Your task to perform on an android device: turn off smart reply in the gmail app Image 0: 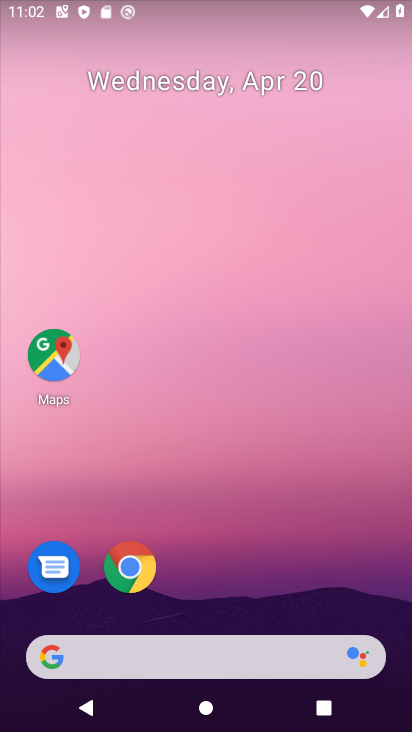
Step 0: drag from (307, 554) to (283, 76)
Your task to perform on an android device: turn off smart reply in the gmail app Image 1: 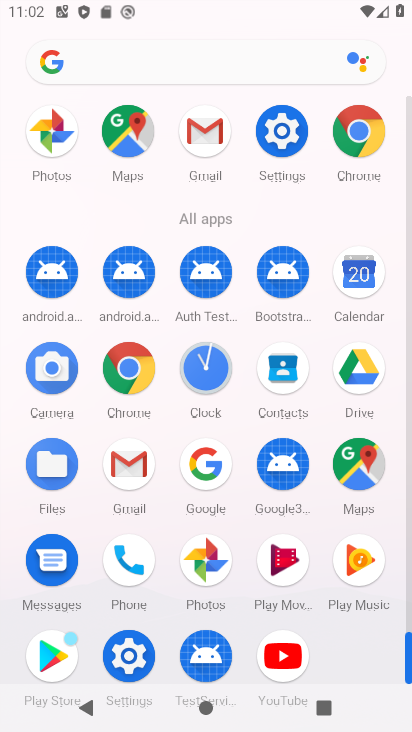
Step 1: drag from (17, 507) to (9, 292)
Your task to perform on an android device: turn off smart reply in the gmail app Image 2: 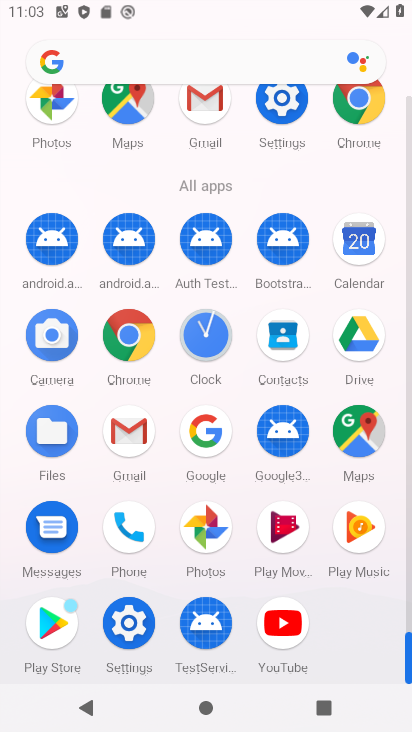
Step 2: click (127, 428)
Your task to perform on an android device: turn off smart reply in the gmail app Image 3: 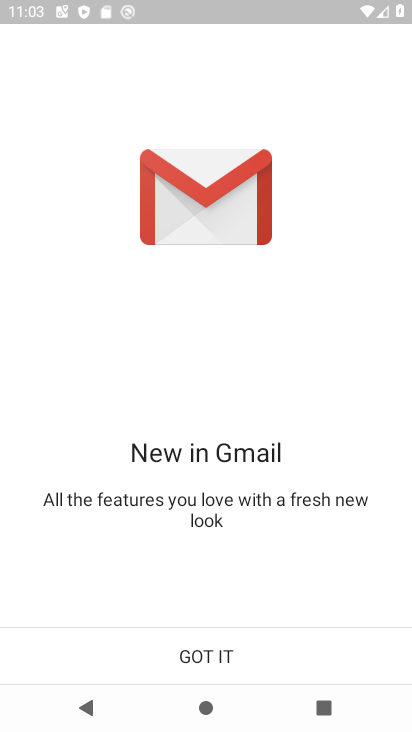
Step 3: click (177, 637)
Your task to perform on an android device: turn off smart reply in the gmail app Image 4: 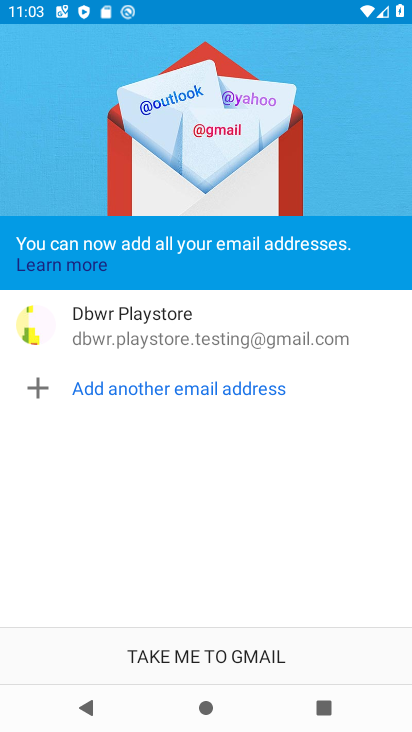
Step 4: click (203, 664)
Your task to perform on an android device: turn off smart reply in the gmail app Image 5: 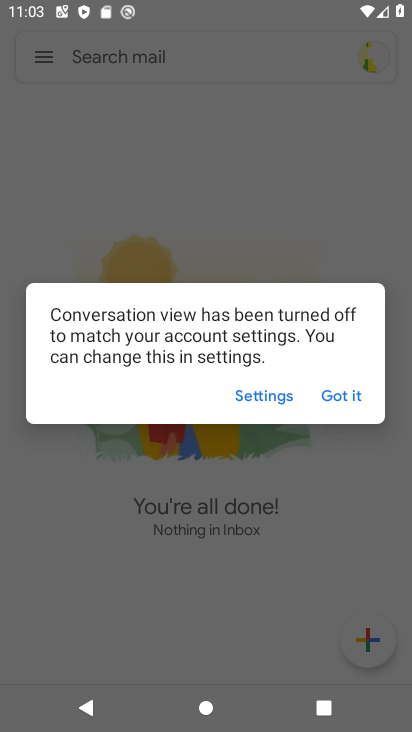
Step 5: click (343, 394)
Your task to perform on an android device: turn off smart reply in the gmail app Image 6: 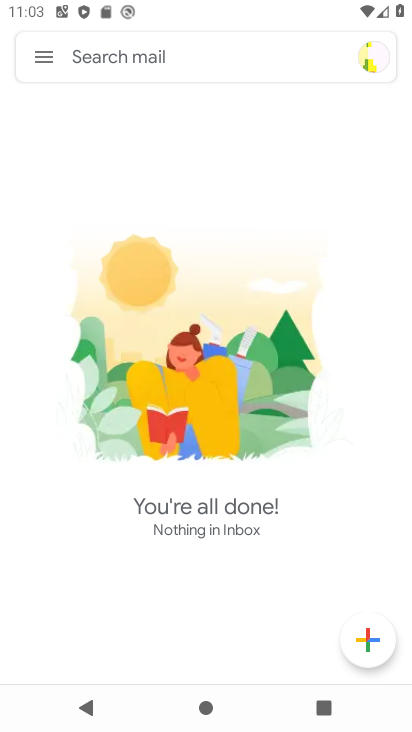
Step 6: click (53, 45)
Your task to perform on an android device: turn off smart reply in the gmail app Image 7: 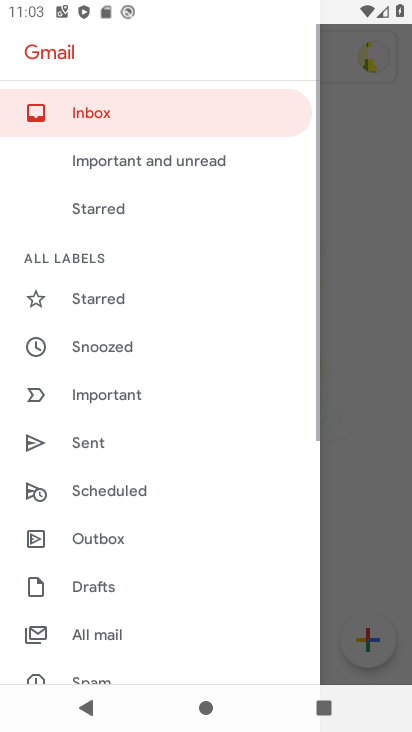
Step 7: drag from (200, 605) to (231, 182)
Your task to perform on an android device: turn off smart reply in the gmail app Image 8: 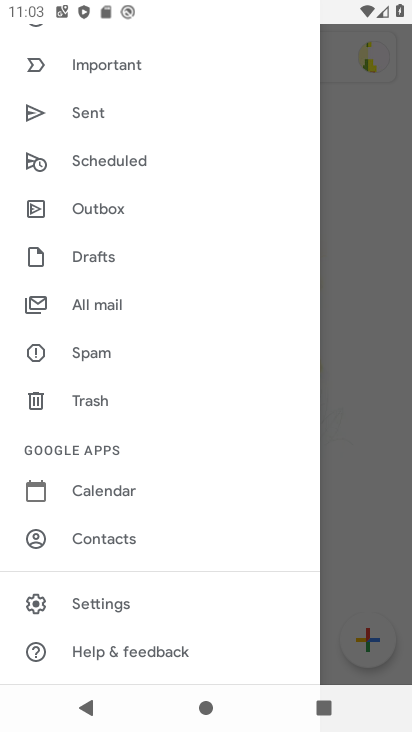
Step 8: click (110, 603)
Your task to perform on an android device: turn off smart reply in the gmail app Image 9: 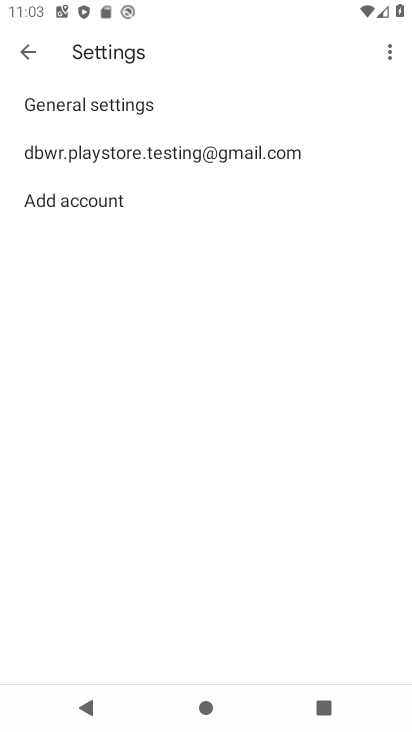
Step 9: click (145, 144)
Your task to perform on an android device: turn off smart reply in the gmail app Image 10: 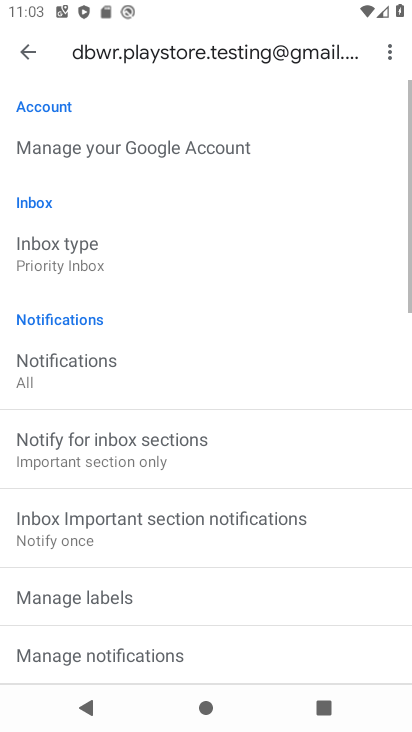
Step 10: drag from (193, 594) to (232, 148)
Your task to perform on an android device: turn off smart reply in the gmail app Image 11: 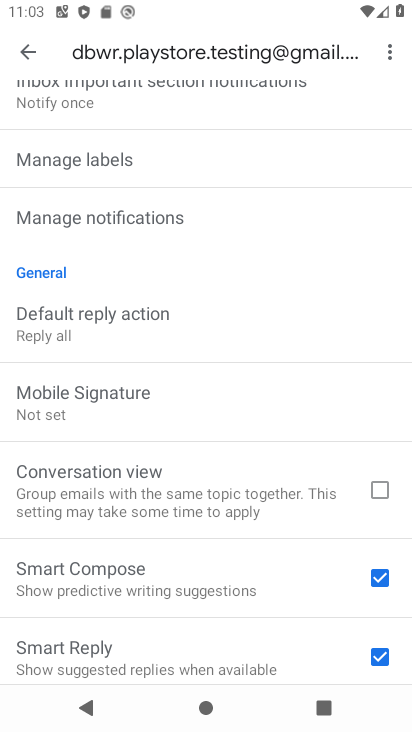
Step 11: drag from (219, 512) to (228, 225)
Your task to perform on an android device: turn off smart reply in the gmail app Image 12: 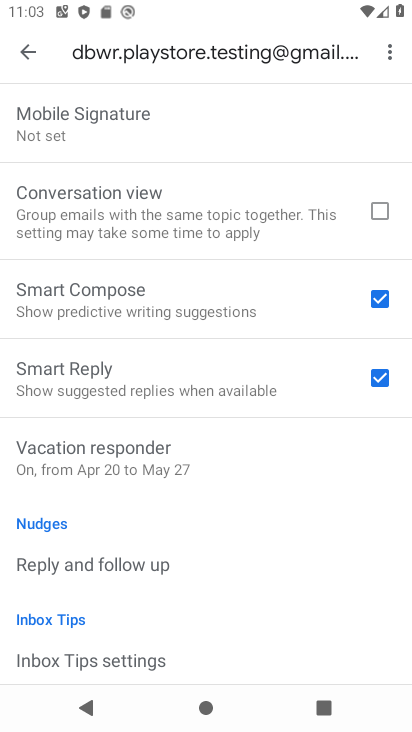
Step 12: click (364, 372)
Your task to perform on an android device: turn off smart reply in the gmail app Image 13: 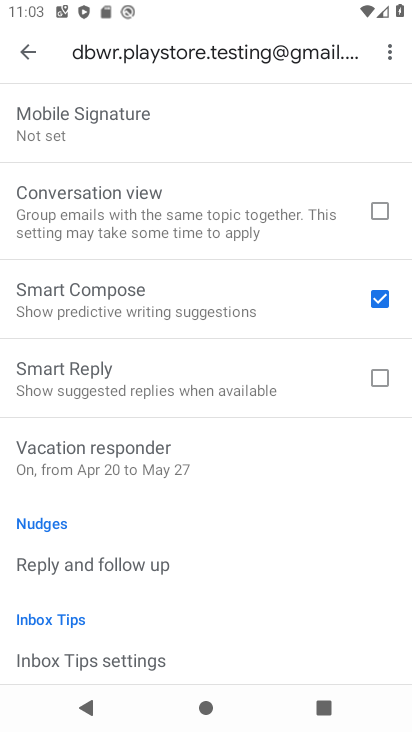
Step 13: task complete